Your task to perform on an android device: open app "AliExpress" (install if not already installed) and enter user name: "orangutan@inbox.com" and password: "Lyons" Image 0: 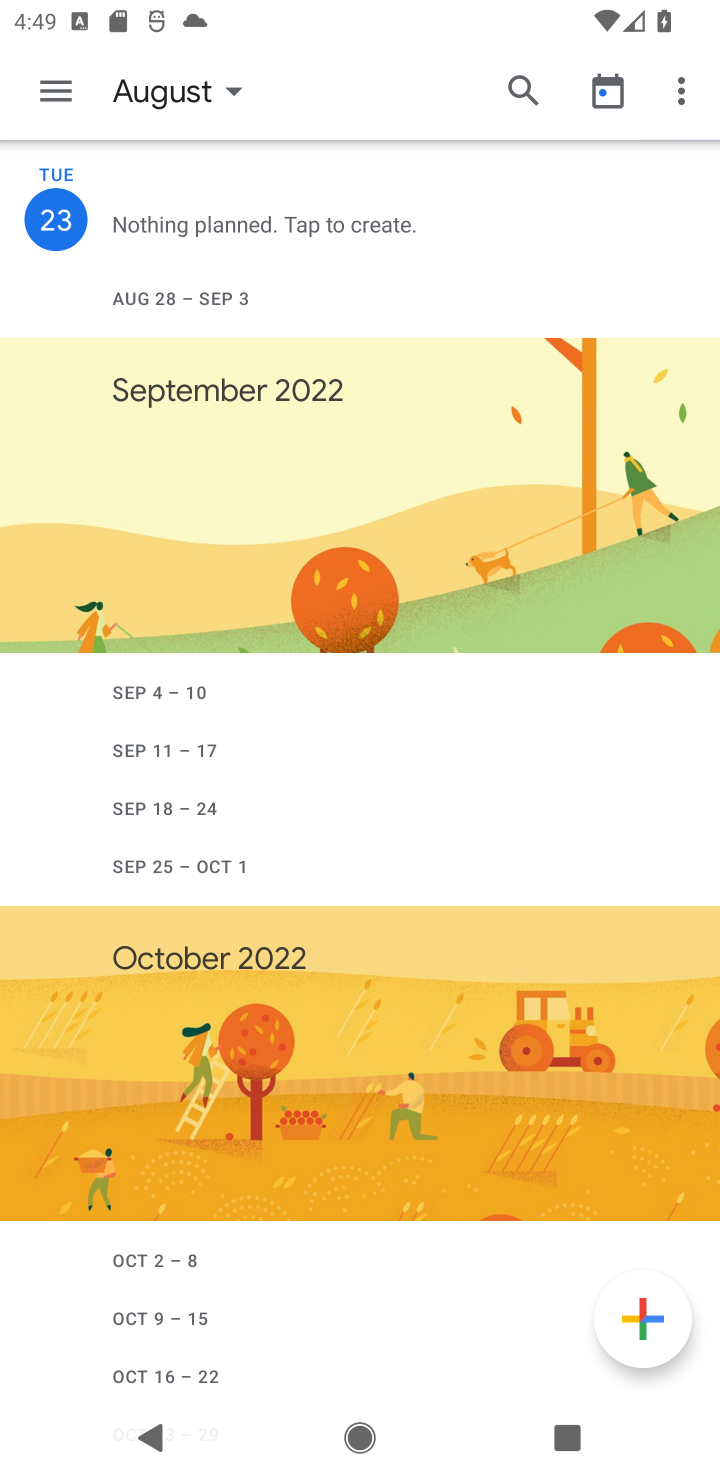
Step 0: press home button
Your task to perform on an android device: open app "AliExpress" (install if not already installed) and enter user name: "orangutan@inbox.com" and password: "Lyons" Image 1: 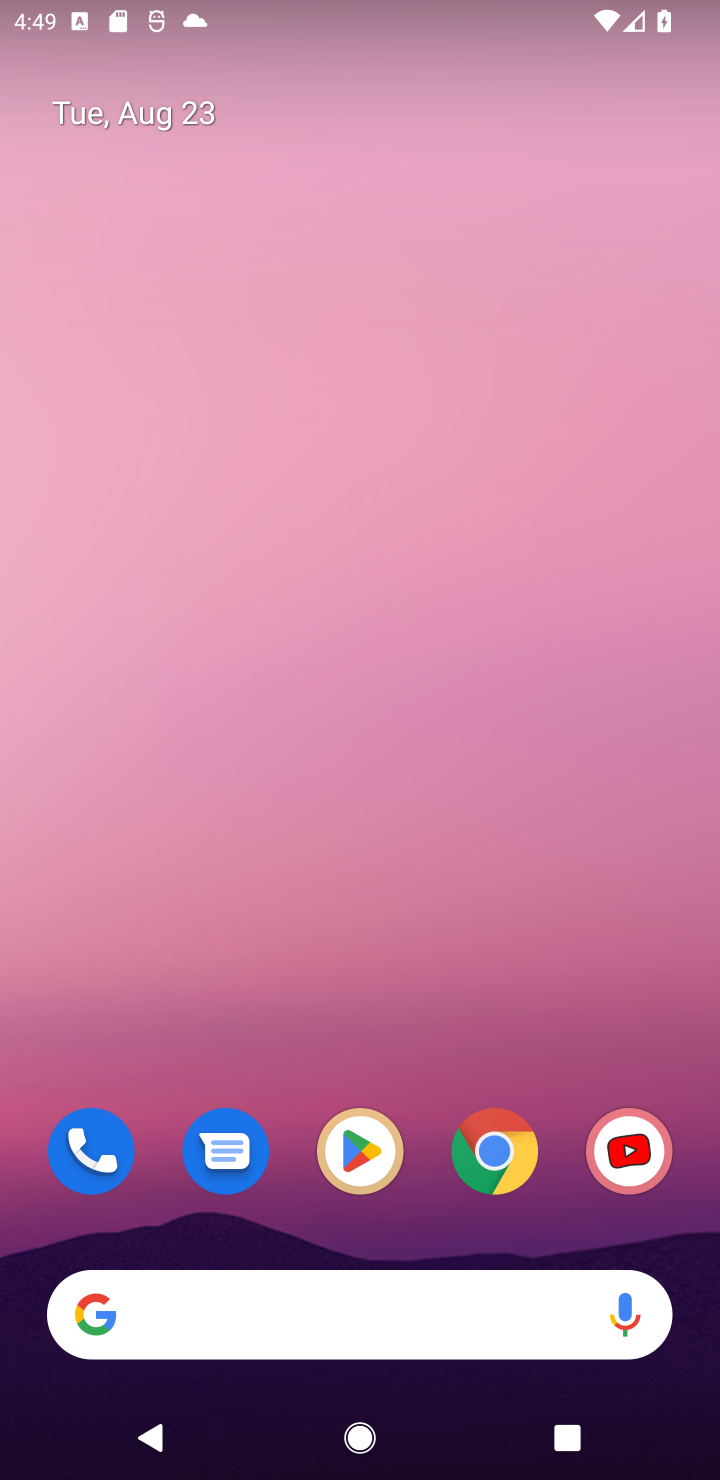
Step 1: click (366, 1139)
Your task to perform on an android device: open app "AliExpress" (install if not already installed) and enter user name: "orangutan@inbox.com" and password: "Lyons" Image 2: 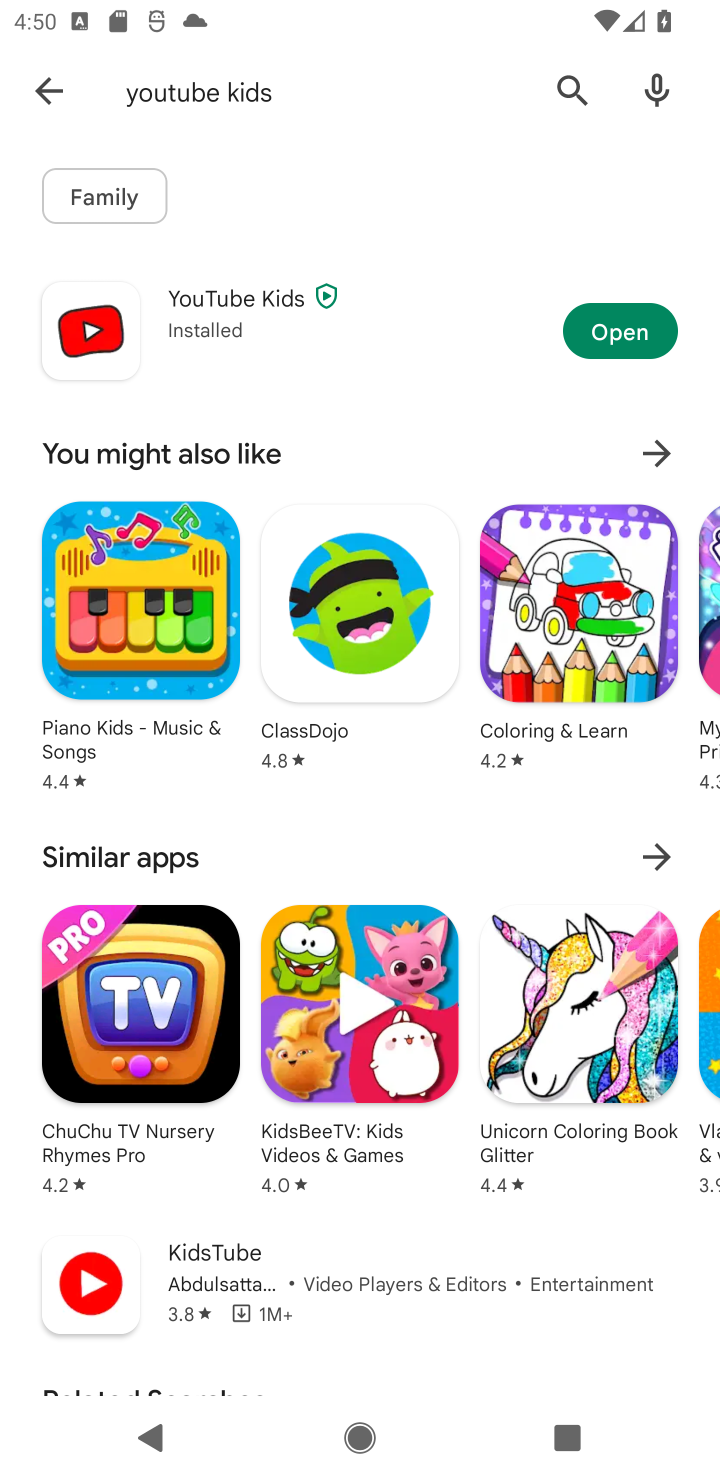
Step 2: click (573, 78)
Your task to perform on an android device: open app "AliExpress" (install if not already installed) and enter user name: "orangutan@inbox.com" and password: "Lyons" Image 3: 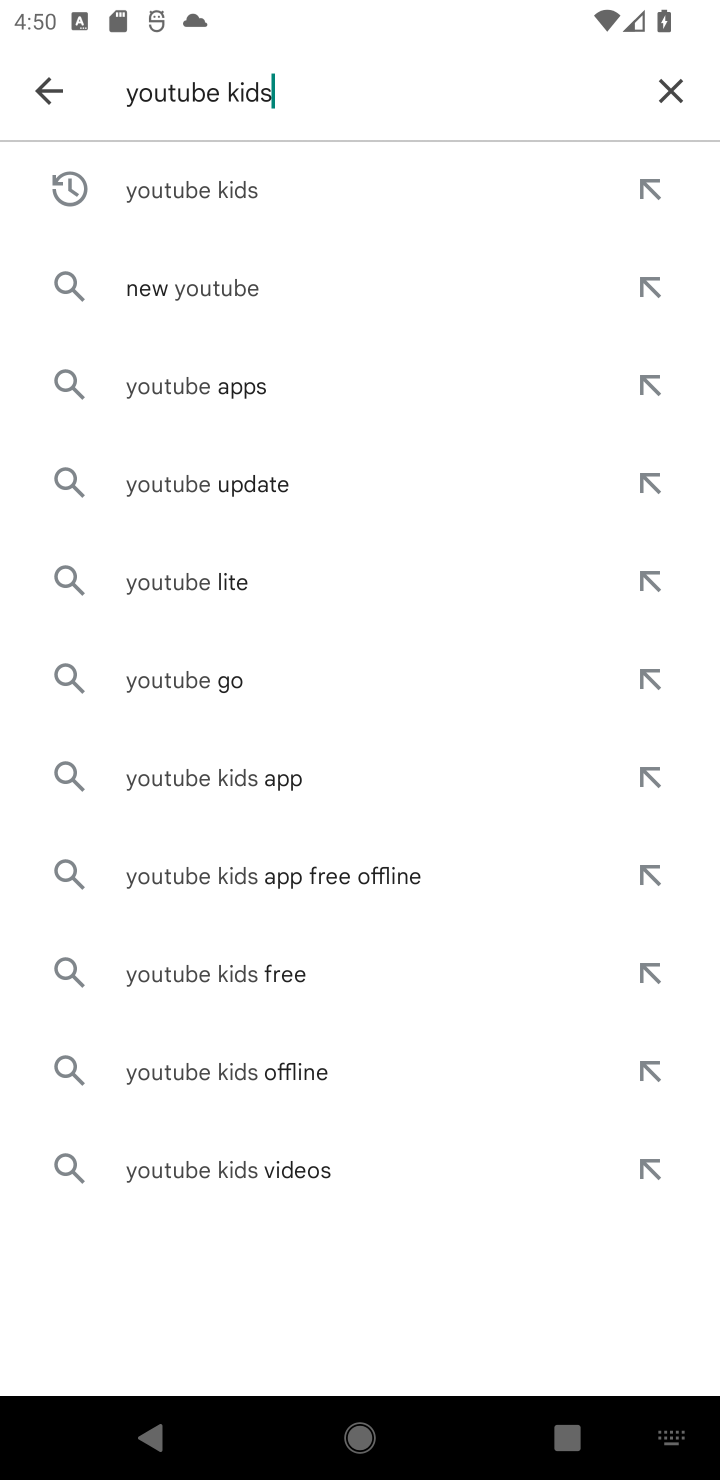
Step 3: click (660, 88)
Your task to perform on an android device: open app "AliExpress" (install if not already installed) and enter user name: "orangutan@inbox.com" and password: "Lyons" Image 4: 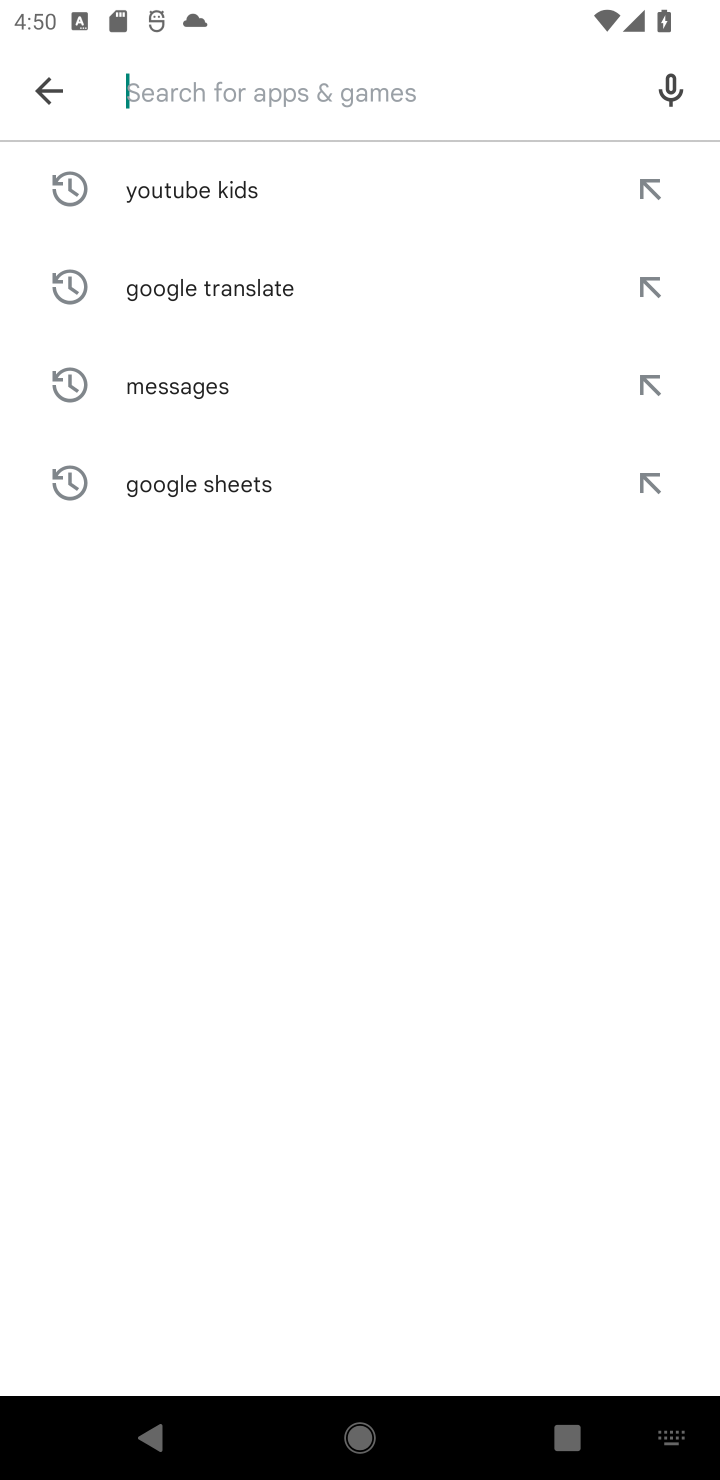
Step 4: type "AliExpress"
Your task to perform on an android device: open app "AliExpress" (install if not already installed) and enter user name: "orangutan@inbox.com" and password: "Lyons" Image 5: 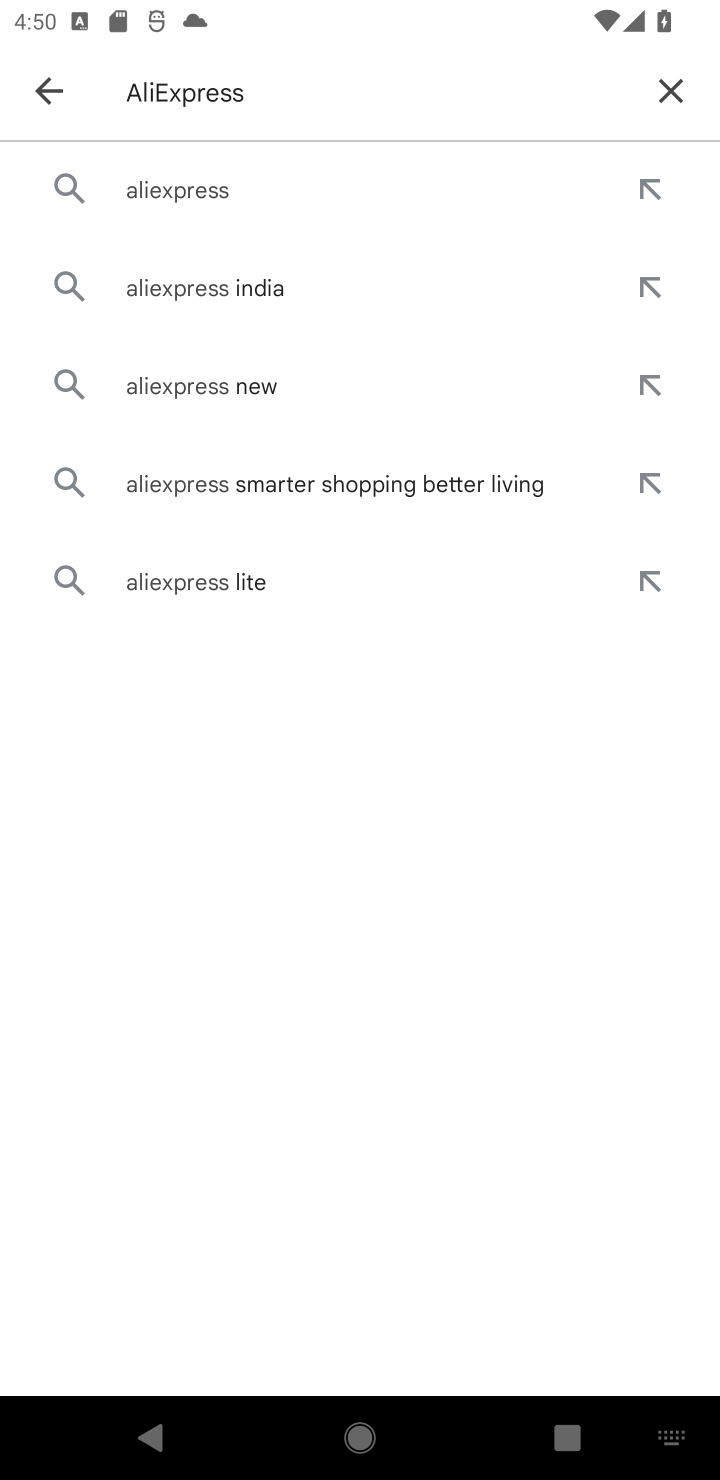
Step 5: click (215, 177)
Your task to perform on an android device: open app "AliExpress" (install if not already installed) and enter user name: "orangutan@inbox.com" and password: "Lyons" Image 6: 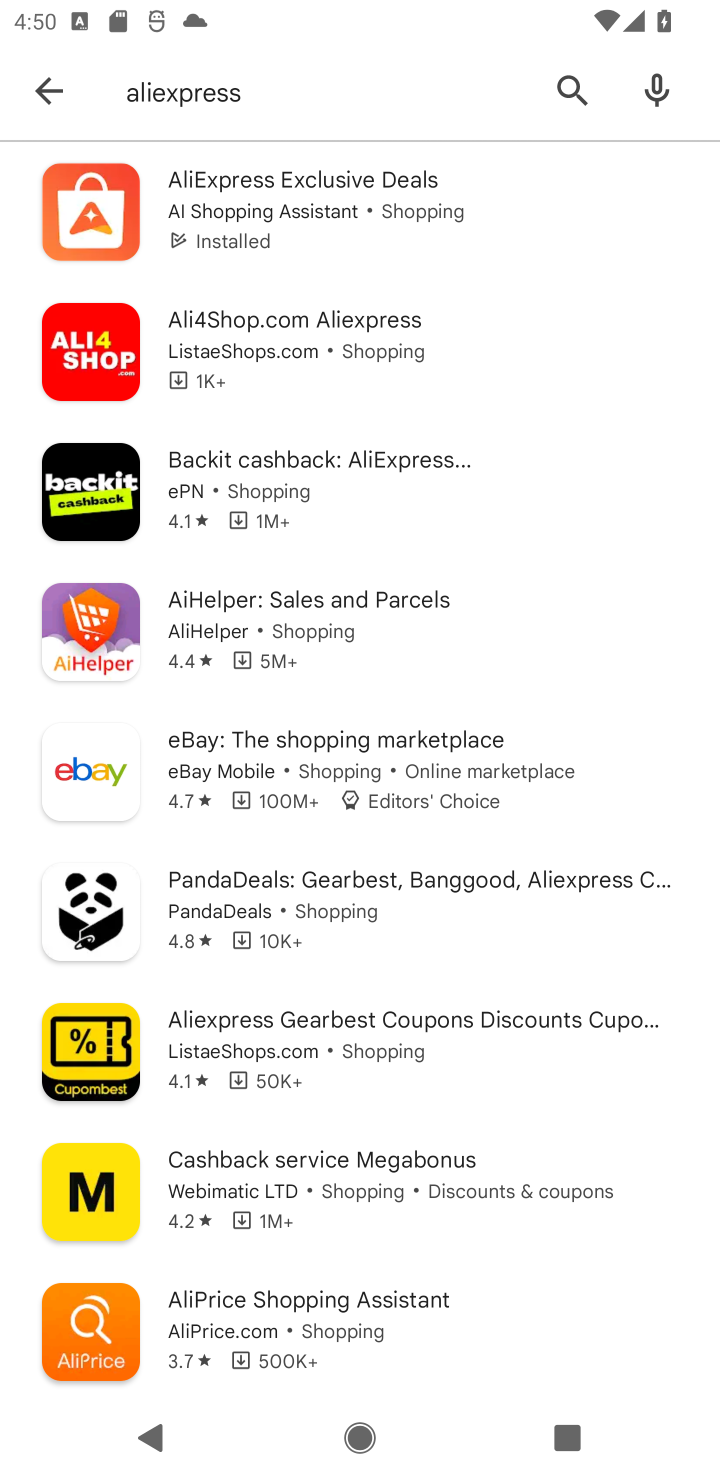
Step 6: click (301, 220)
Your task to perform on an android device: open app "AliExpress" (install if not already installed) and enter user name: "orangutan@inbox.com" and password: "Lyons" Image 7: 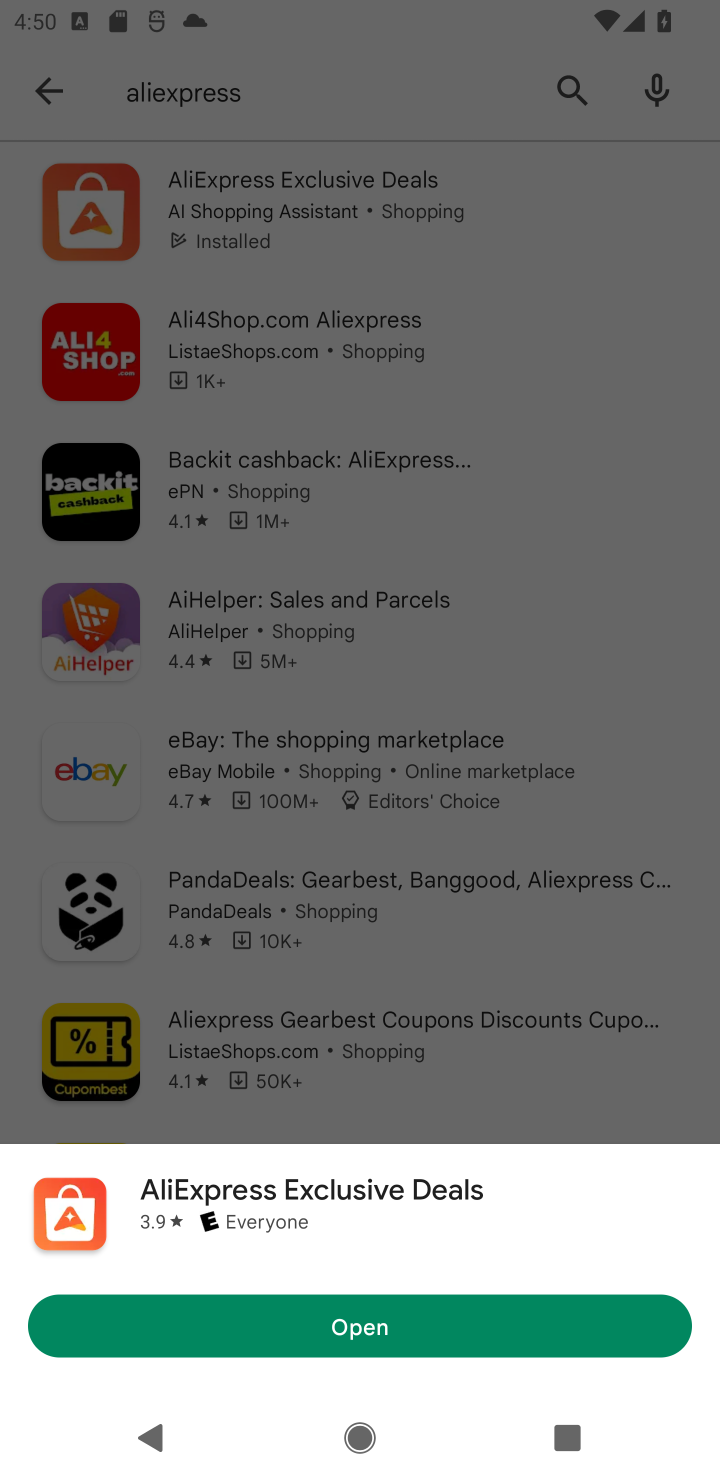
Step 7: click (366, 1316)
Your task to perform on an android device: open app "AliExpress" (install if not already installed) and enter user name: "orangutan@inbox.com" and password: "Lyons" Image 8: 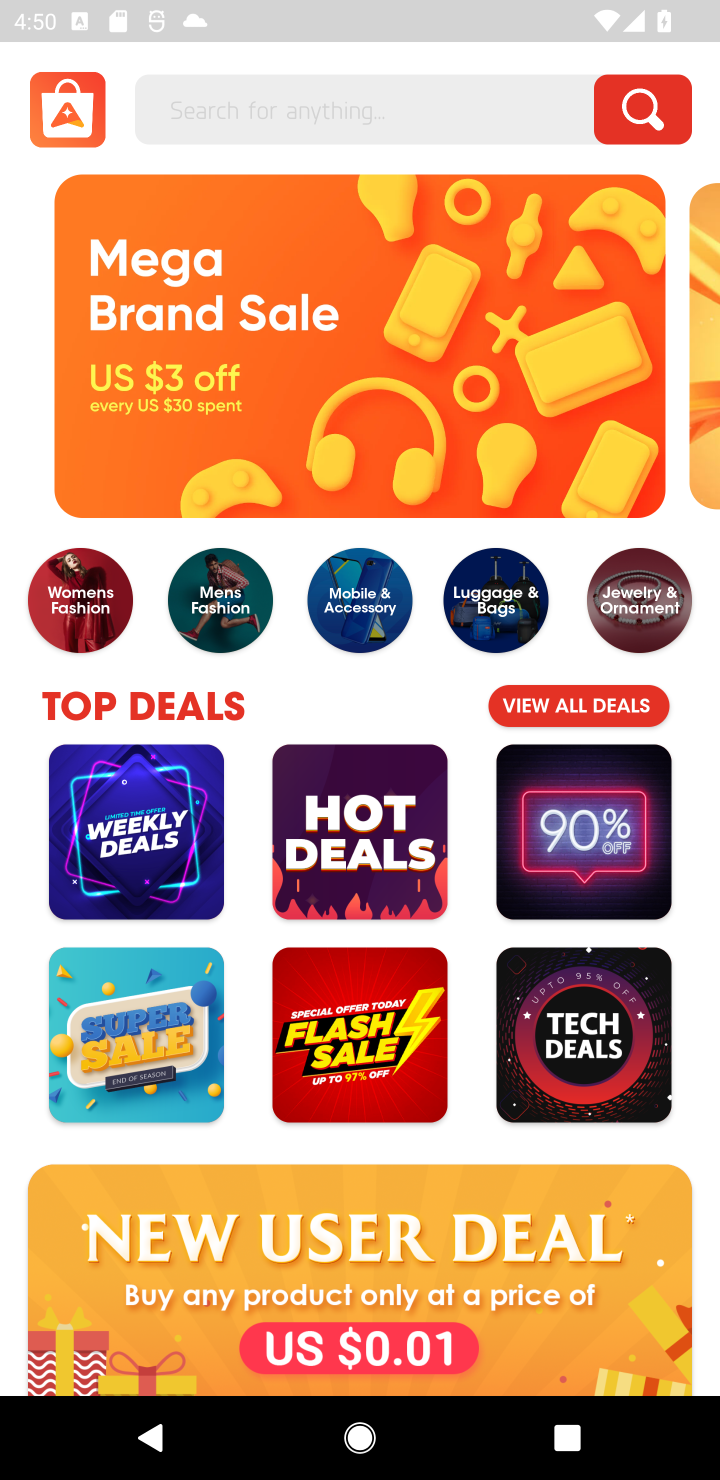
Step 8: task complete